Your task to perform on an android device: turn on sleep mode Image 0: 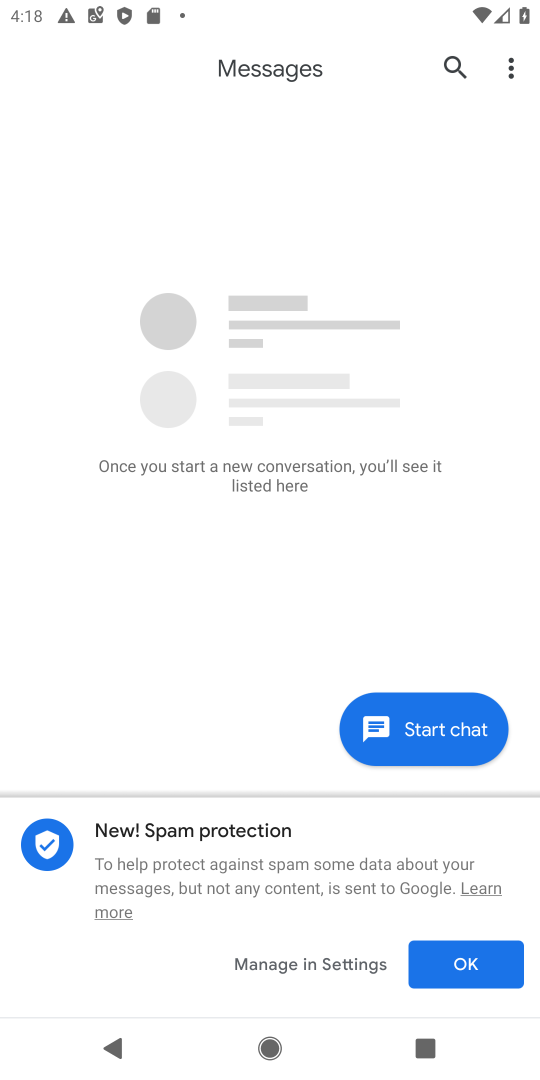
Step 0: press home button
Your task to perform on an android device: turn on sleep mode Image 1: 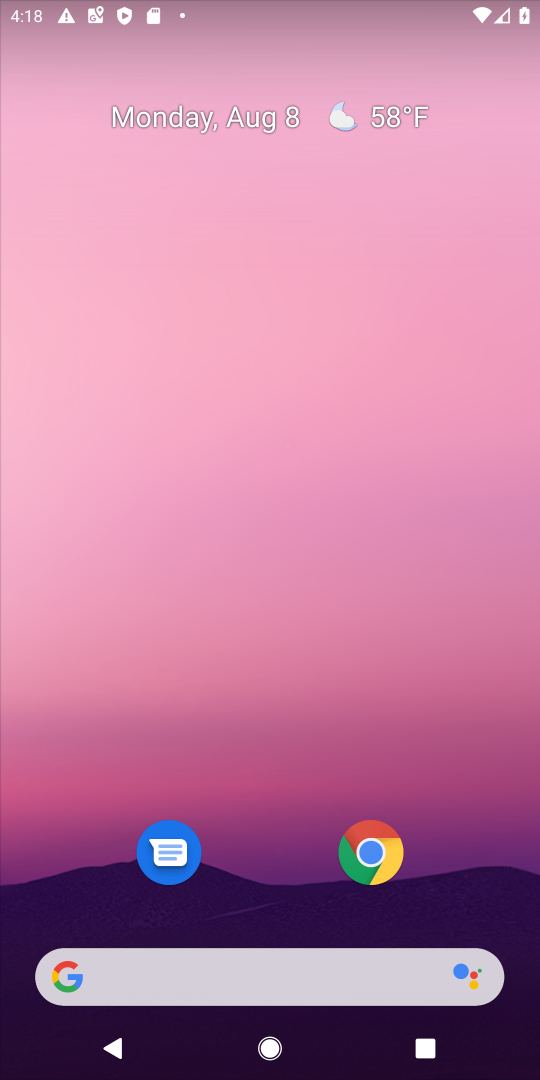
Step 1: drag from (337, 582) to (362, 205)
Your task to perform on an android device: turn on sleep mode Image 2: 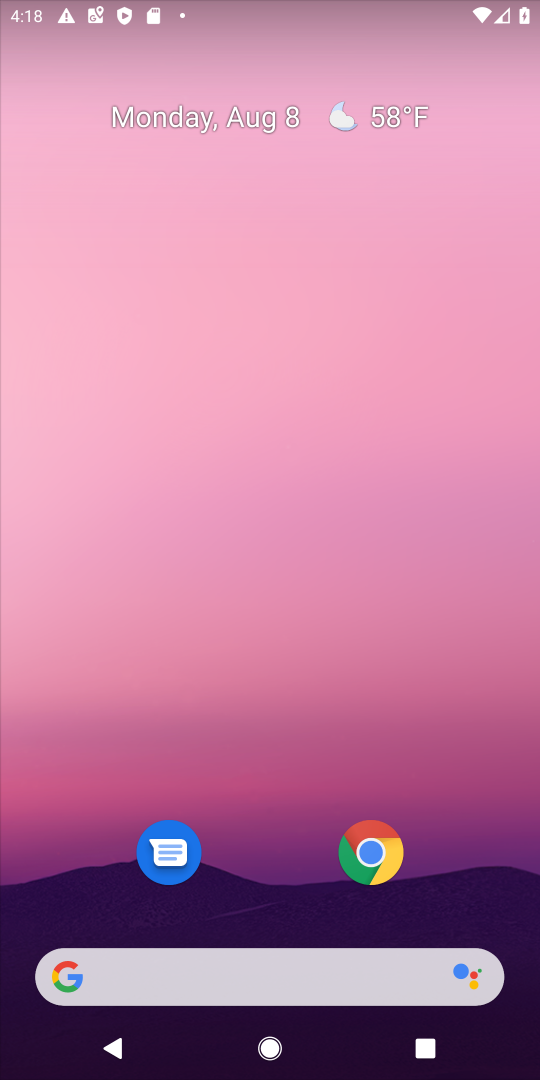
Step 2: drag from (305, 685) to (371, 182)
Your task to perform on an android device: turn on sleep mode Image 3: 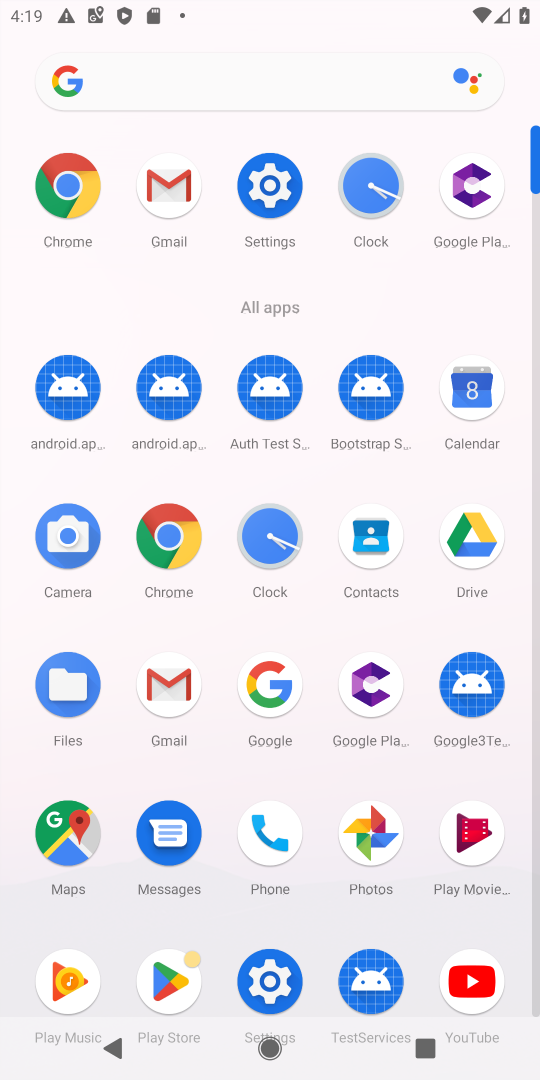
Step 3: click (284, 204)
Your task to perform on an android device: turn on sleep mode Image 4: 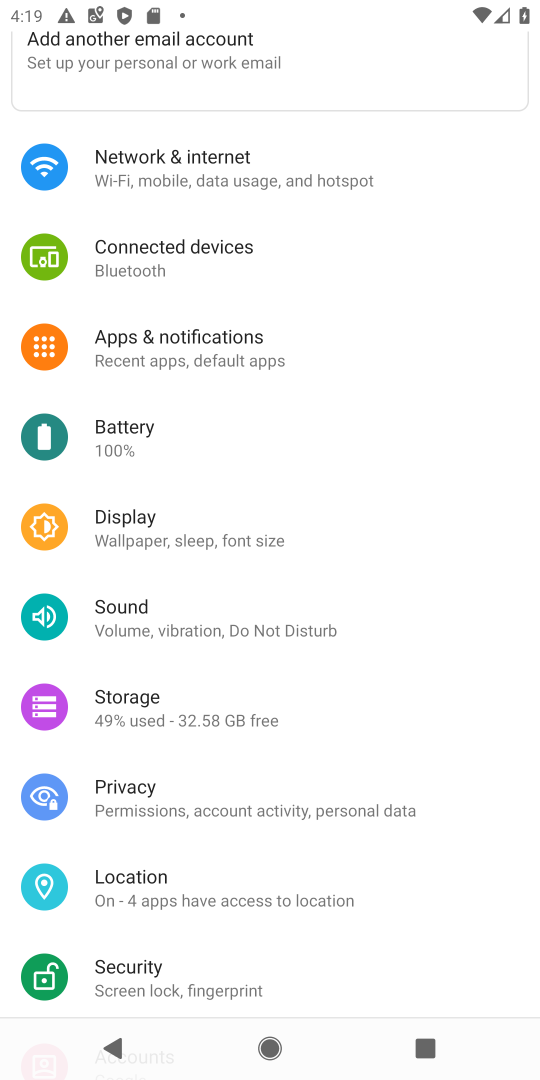
Step 4: click (175, 520)
Your task to perform on an android device: turn on sleep mode Image 5: 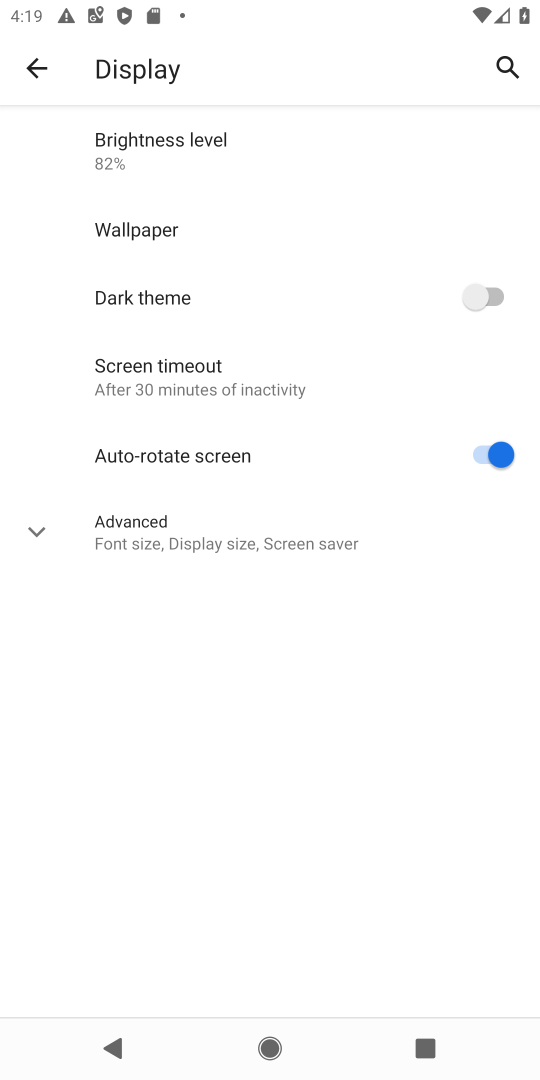
Step 5: click (169, 374)
Your task to perform on an android device: turn on sleep mode Image 6: 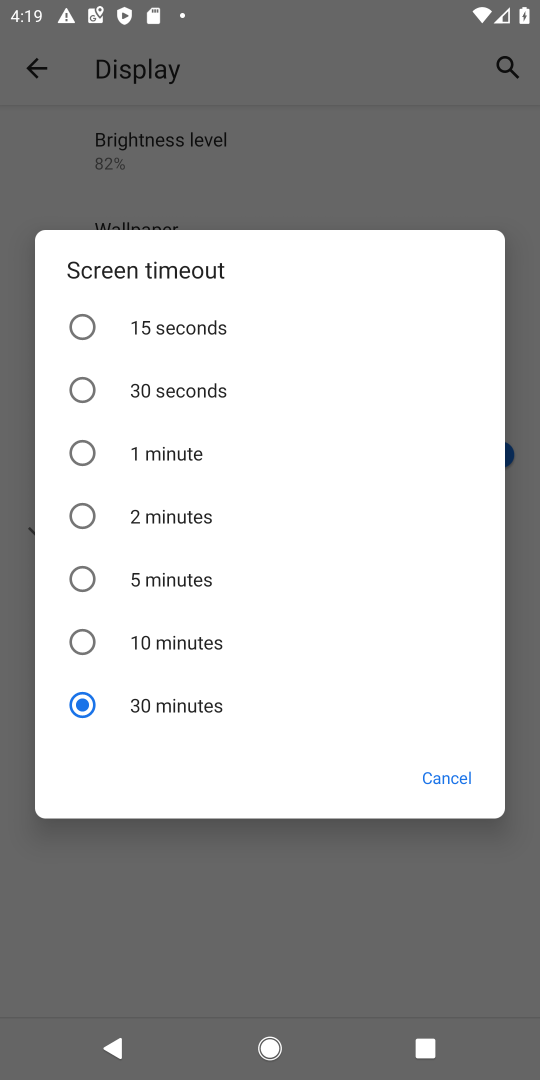
Step 6: task complete